Your task to perform on an android device: set an alarm Image 0: 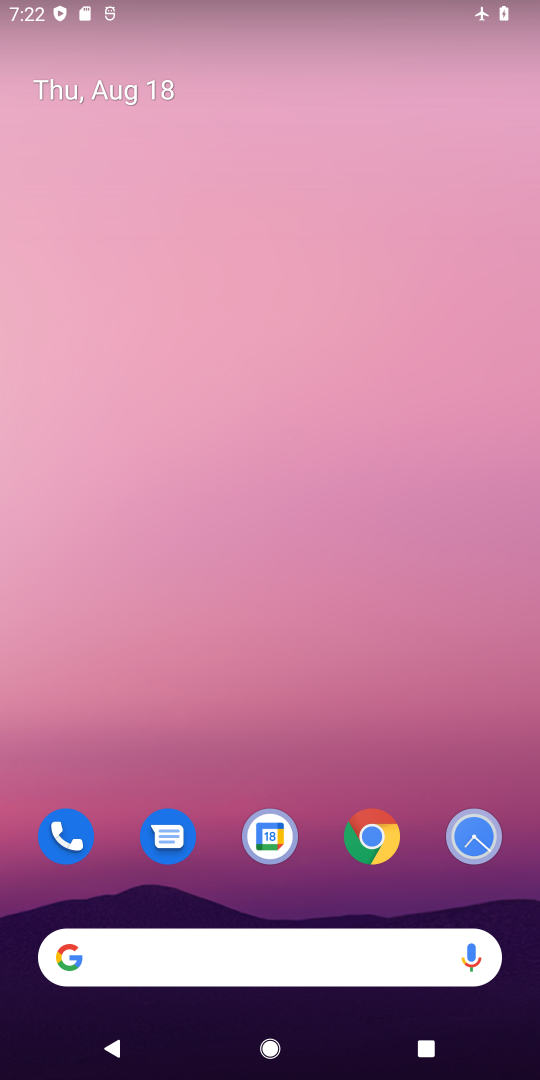
Step 0: drag from (253, 671) to (417, 26)
Your task to perform on an android device: set an alarm Image 1: 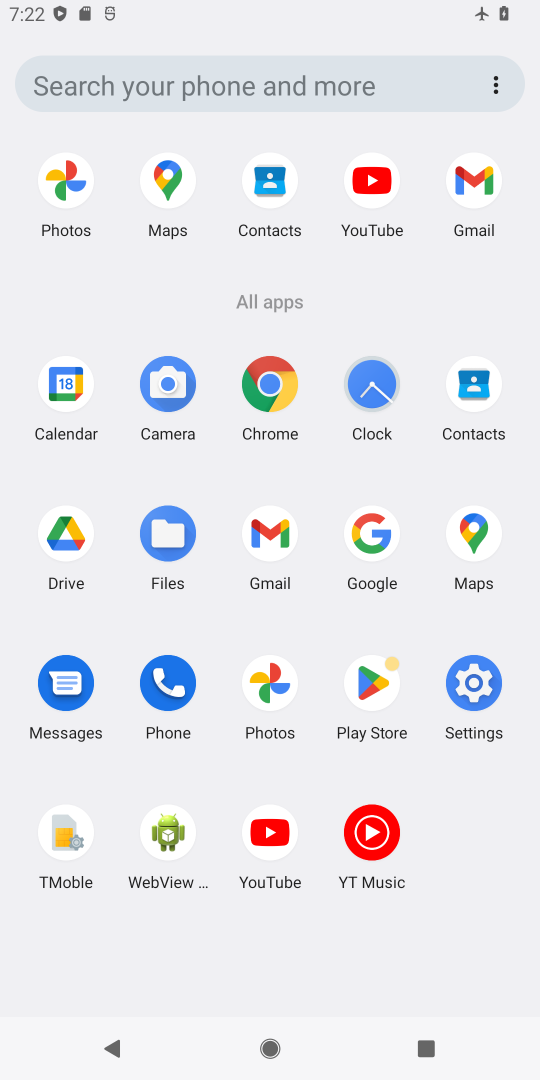
Step 1: click (370, 386)
Your task to perform on an android device: set an alarm Image 2: 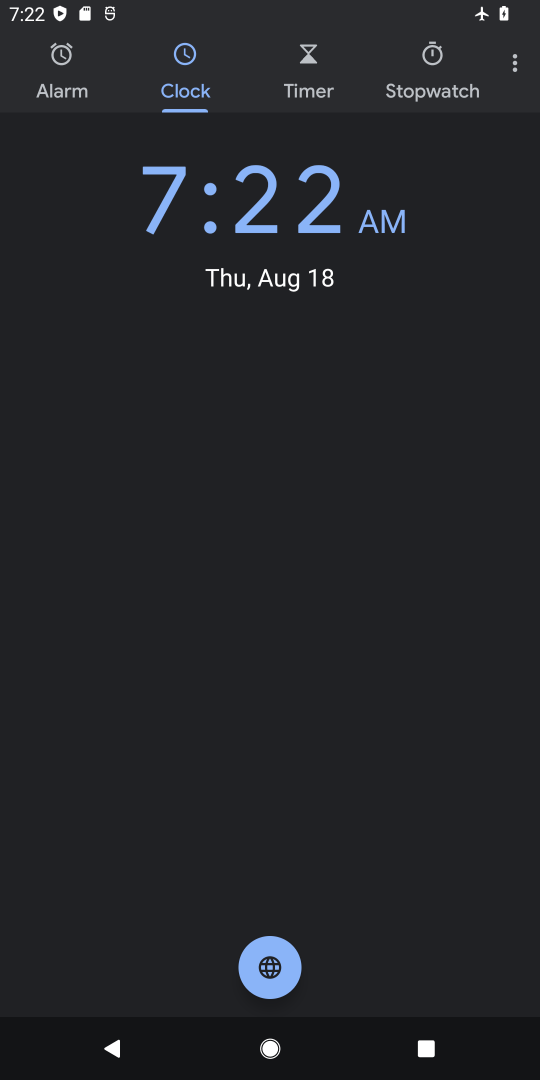
Step 2: click (517, 64)
Your task to perform on an android device: set an alarm Image 3: 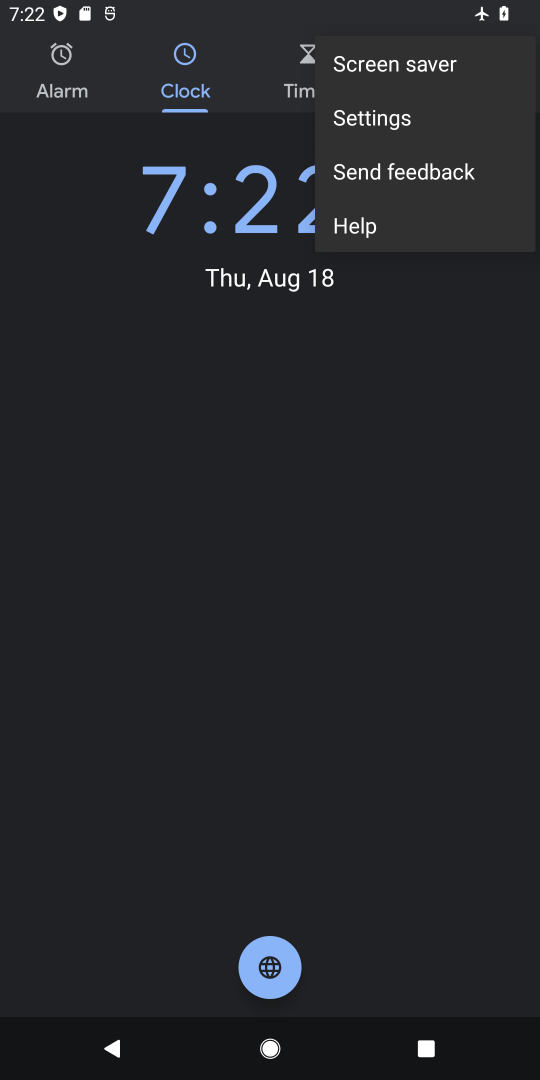
Step 3: click (281, 421)
Your task to perform on an android device: set an alarm Image 4: 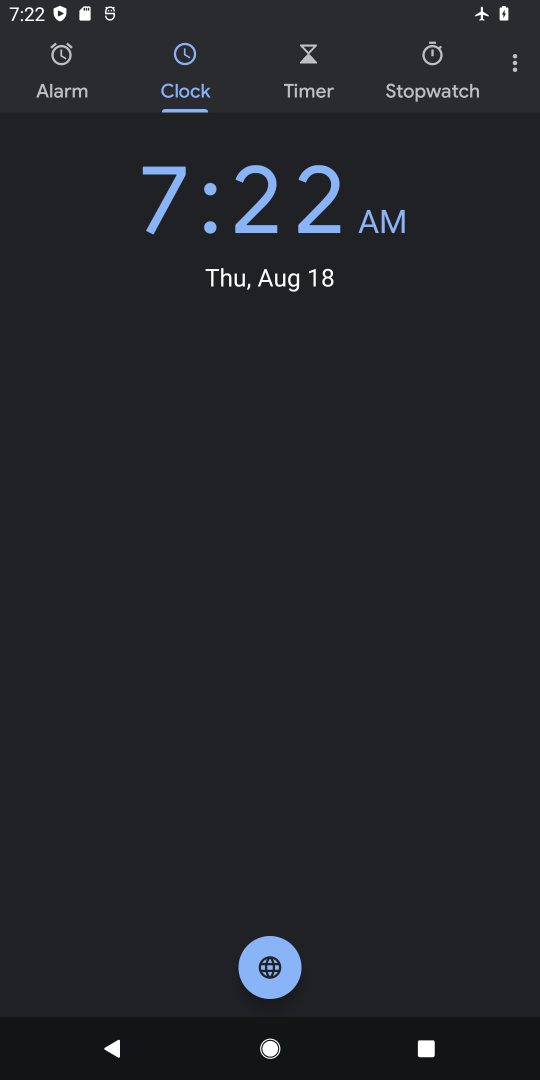
Step 4: click (82, 85)
Your task to perform on an android device: set an alarm Image 5: 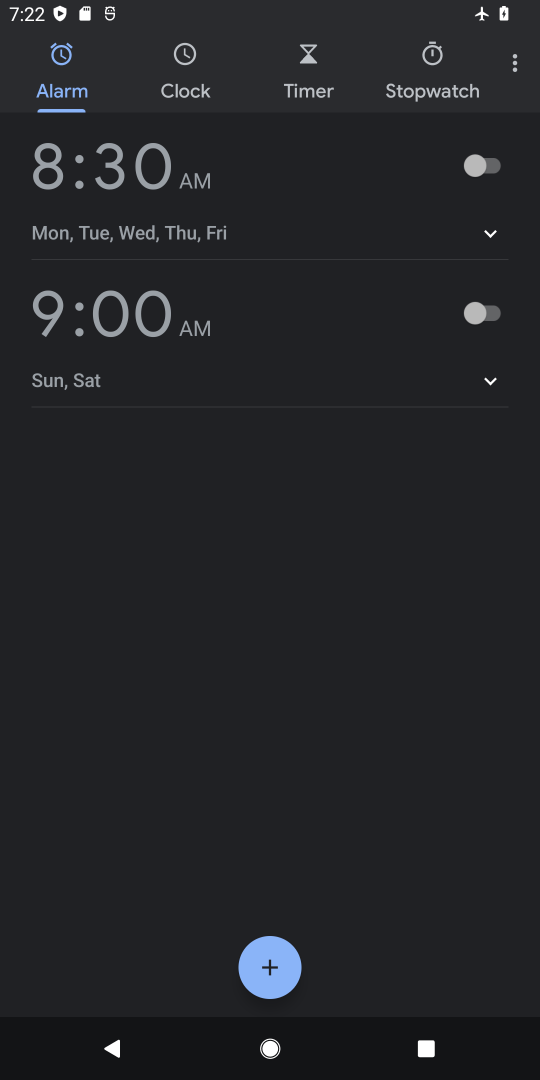
Step 5: click (283, 945)
Your task to perform on an android device: set an alarm Image 6: 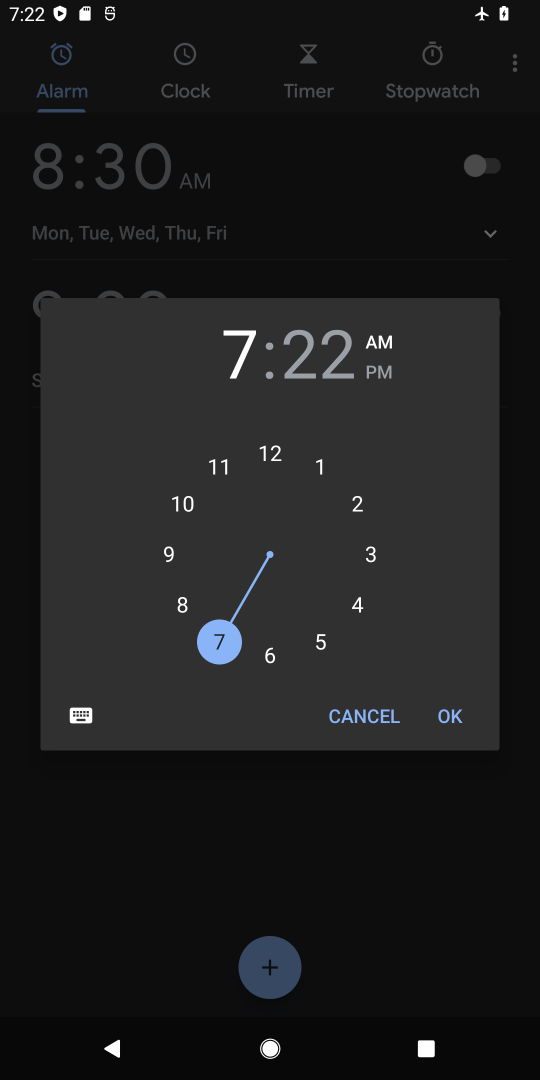
Step 6: click (447, 726)
Your task to perform on an android device: set an alarm Image 7: 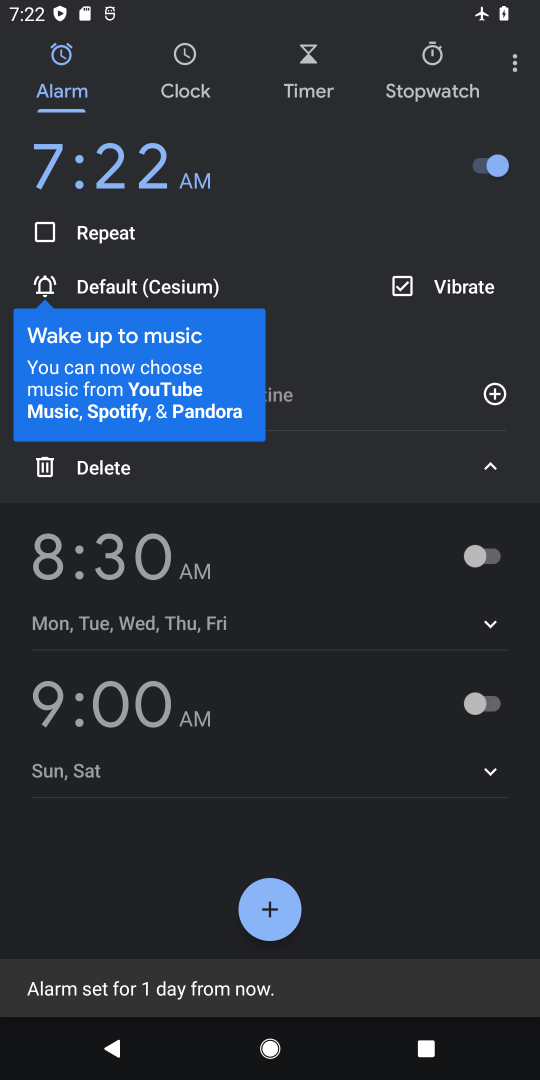
Step 7: task complete